Your task to perform on an android device: Show me productivity apps on the Play Store Image 0: 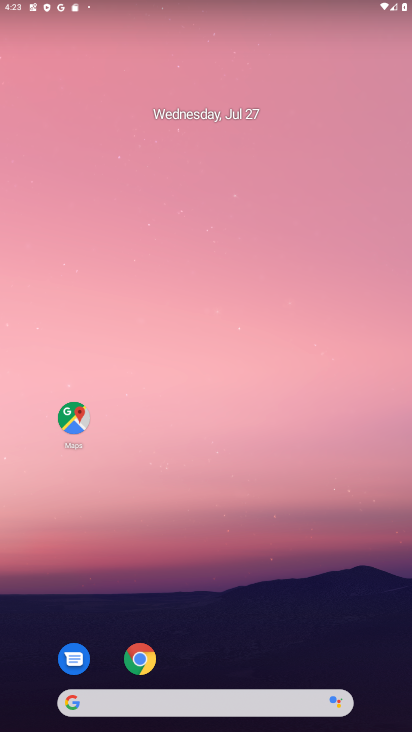
Step 0: click (234, 163)
Your task to perform on an android device: Show me productivity apps on the Play Store Image 1: 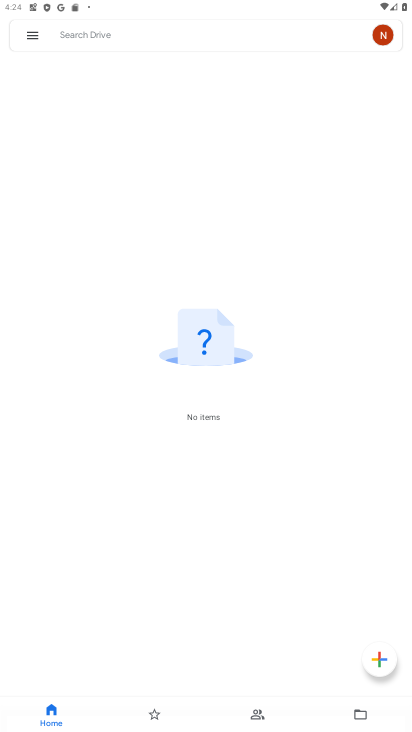
Step 1: press home button
Your task to perform on an android device: Show me productivity apps on the Play Store Image 2: 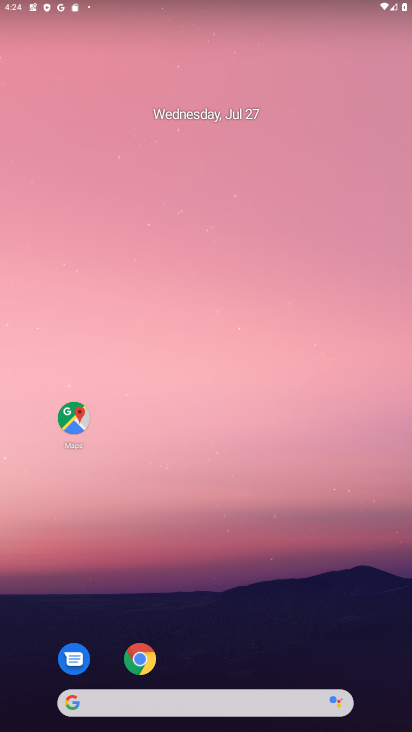
Step 2: drag from (261, 660) to (217, 240)
Your task to perform on an android device: Show me productivity apps on the Play Store Image 3: 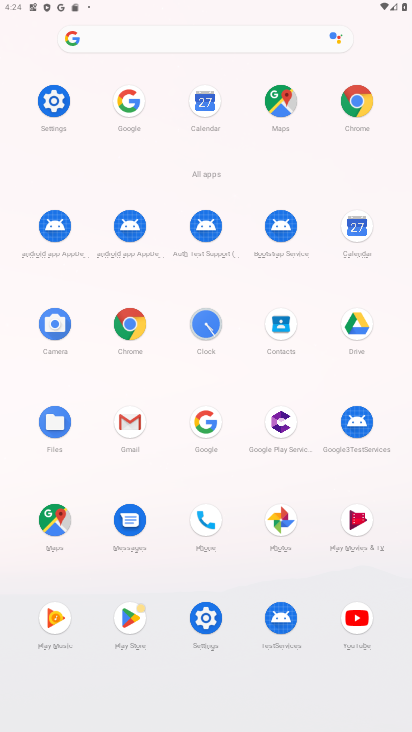
Step 3: click (124, 620)
Your task to perform on an android device: Show me productivity apps on the Play Store Image 4: 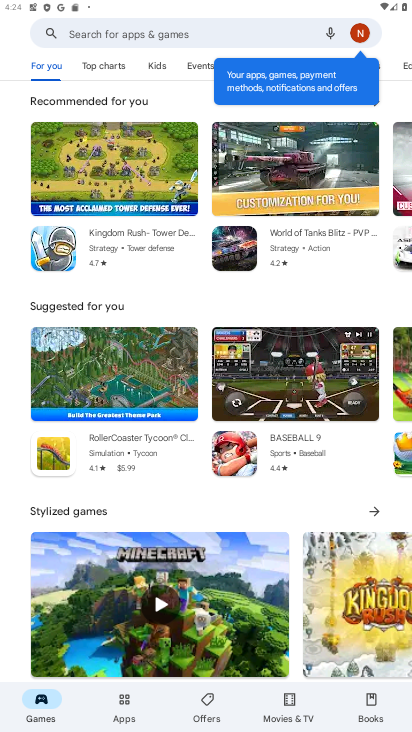
Step 4: click (117, 696)
Your task to perform on an android device: Show me productivity apps on the Play Store Image 5: 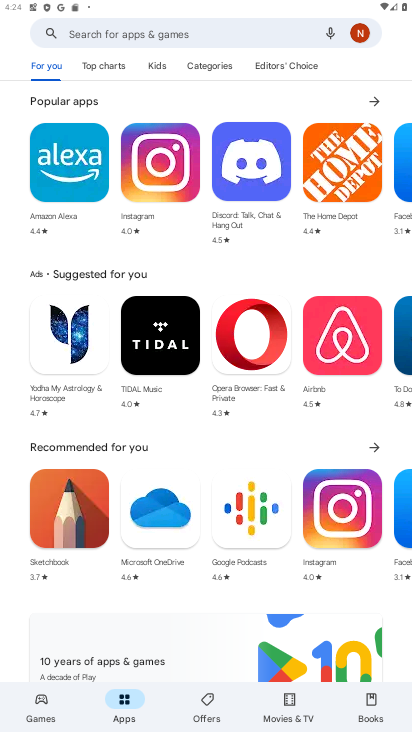
Step 5: click (219, 72)
Your task to perform on an android device: Show me productivity apps on the Play Store Image 6: 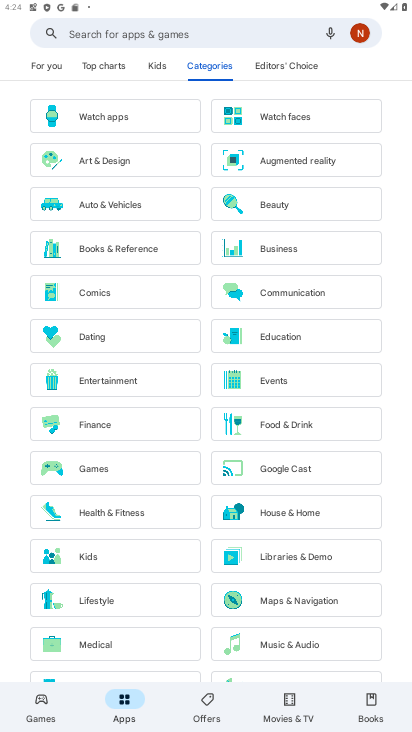
Step 6: drag from (198, 599) to (188, 210)
Your task to perform on an android device: Show me productivity apps on the Play Store Image 7: 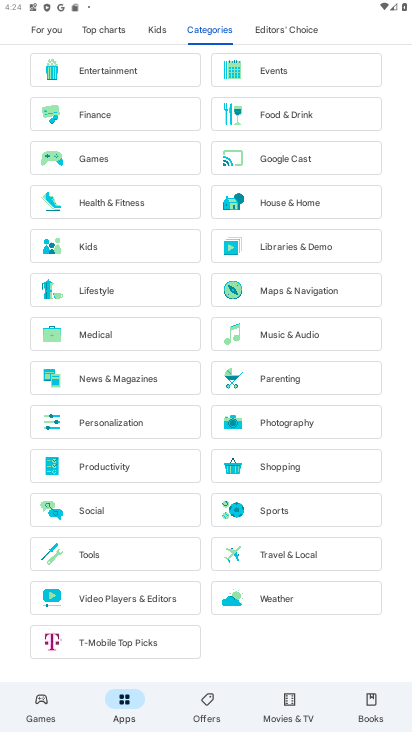
Step 7: click (160, 466)
Your task to perform on an android device: Show me productivity apps on the Play Store Image 8: 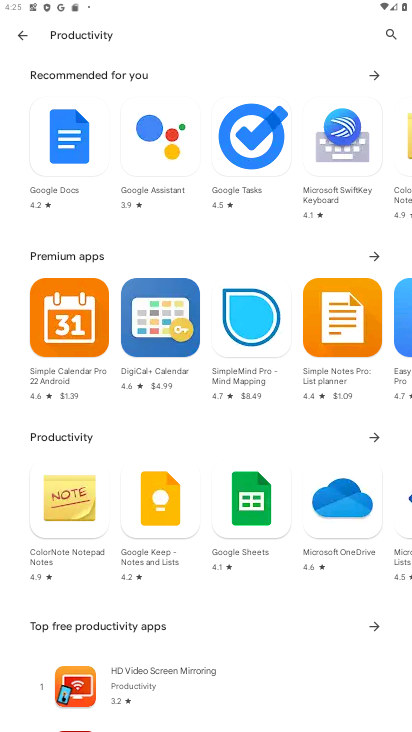
Step 8: task complete